Your task to perform on an android device: open chrome and create a bookmark for the current page Image 0: 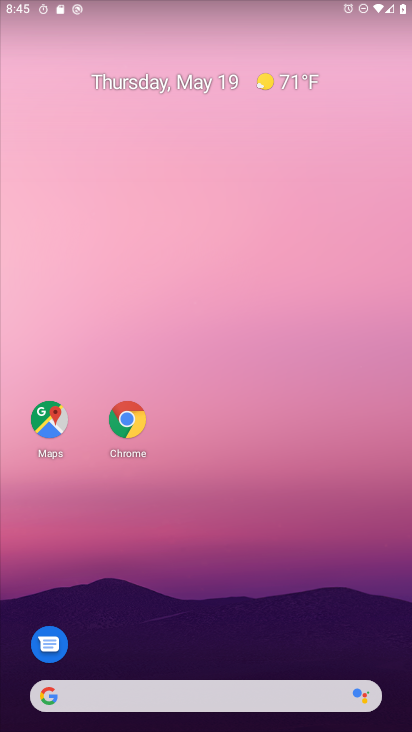
Step 0: click (130, 421)
Your task to perform on an android device: open chrome and create a bookmark for the current page Image 1: 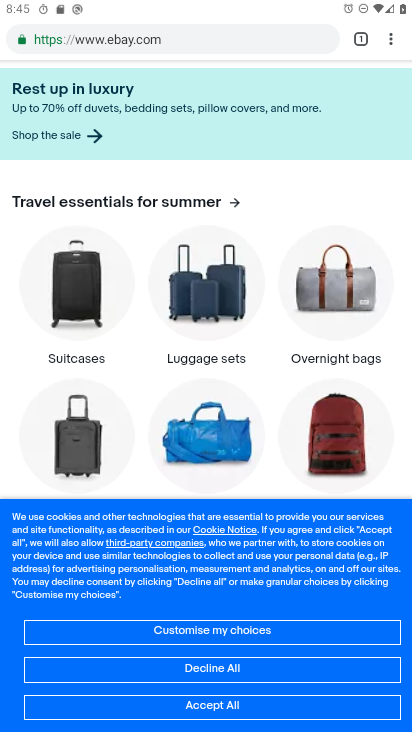
Step 1: click (394, 37)
Your task to perform on an android device: open chrome and create a bookmark for the current page Image 2: 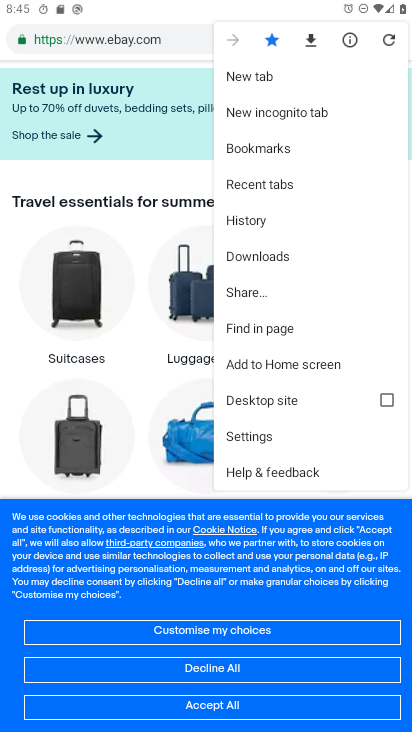
Step 2: task complete